Your task to perform on an android device: turn on the 24-hour format for clock Image 0: 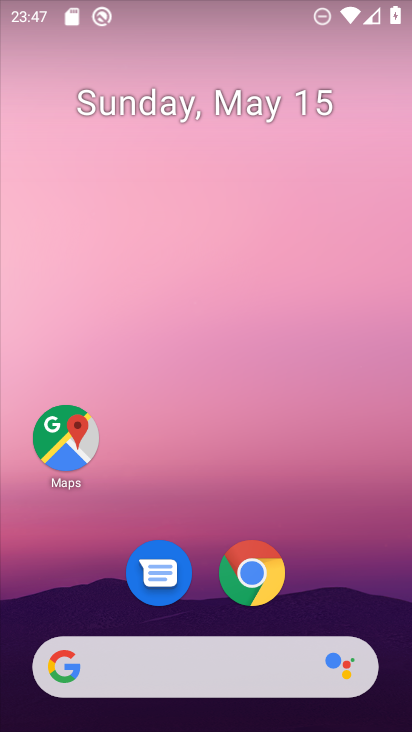
Step 0: press home button
Your task to perform on an android device: turn on the 24-hour format for clock Image 1: 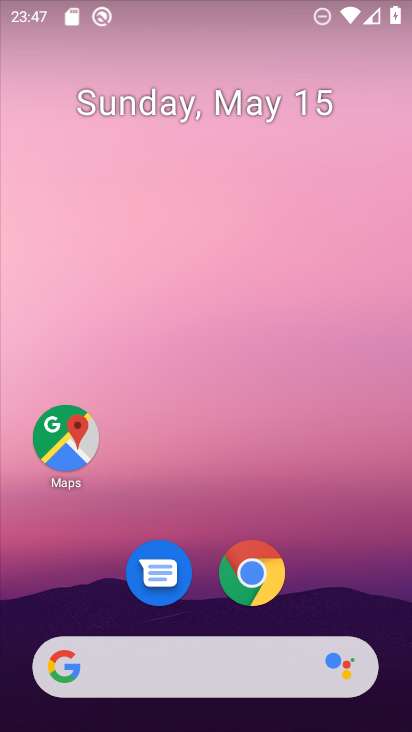
Step 1: drag from (355, 613) to (192, 6)
Your task to perform on an android device: turn on the 24-hour format for clock Image 2: 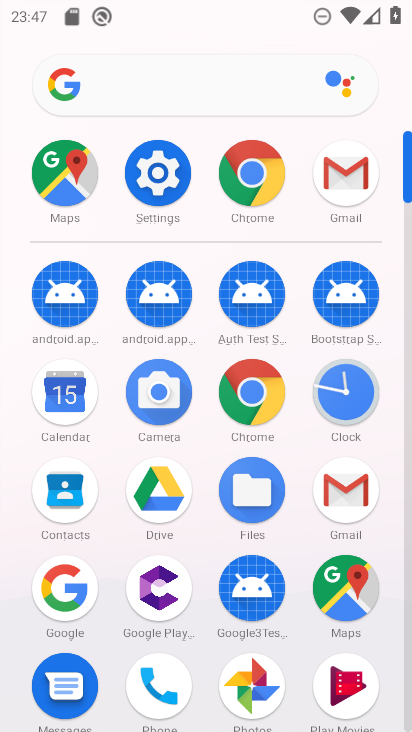
Step 2: click (339, 392)
Your task to perform on an android device: turn on the 24-hour format for clock Image 3: 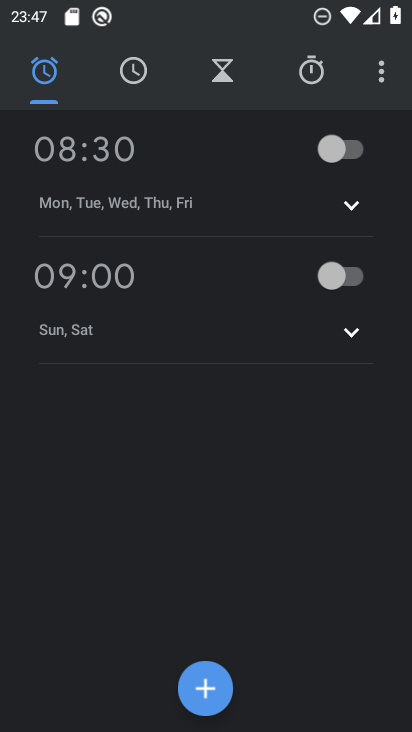
Step 3: click (380, 52)
Your task to perform on an android device: turn on the 24-hour format for clock Image 4: 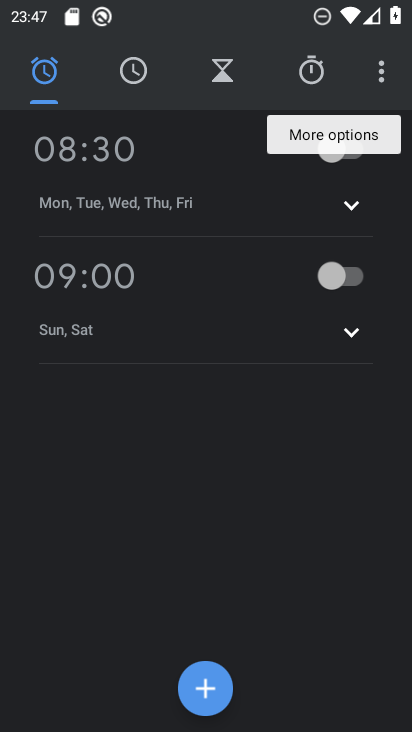
Step 4: click (369, 75)
Your task to perform on an android device: turn on the 24-hour format for clock Image 5: 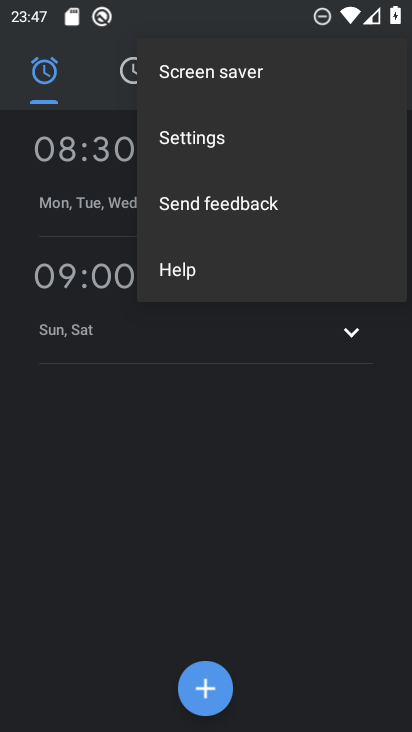
Step 5: click (205, 142)
Your task to perform on an android device: turn on the 24-hour format for clock Image 6: 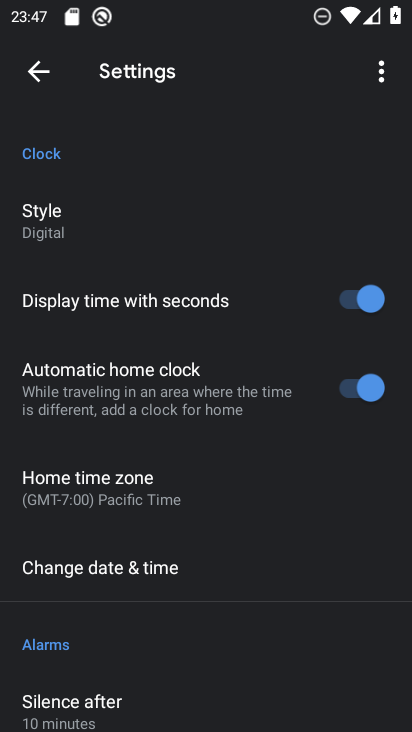
Step 6: click (177, 578)
Your task to perform on an android device: turn on the 24-hour format for clock Image 7: 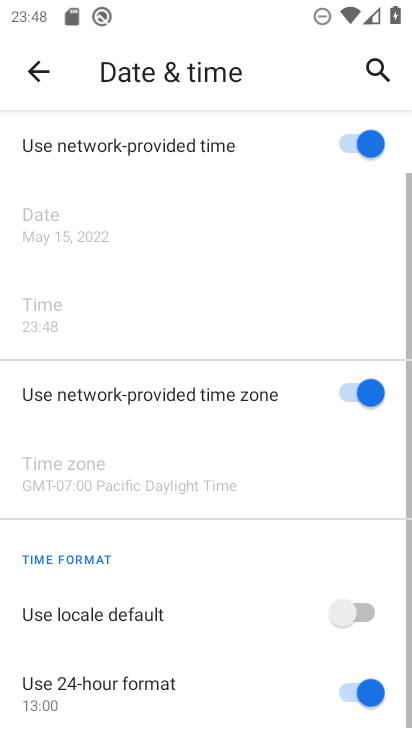
Step 7: task complete